Your task to perform on an android device: set default search engine in the chrome app Image 0: 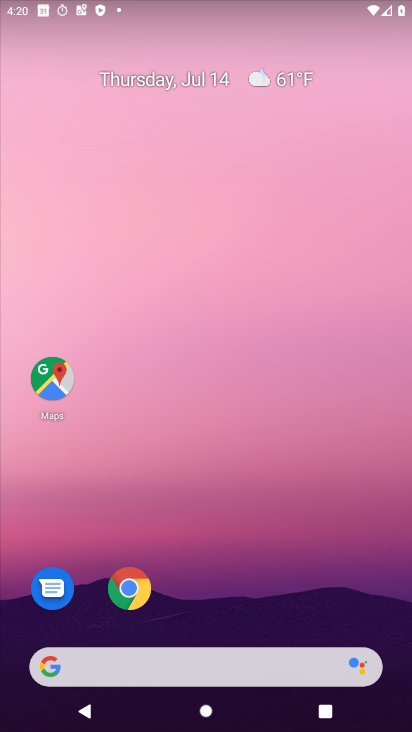
Step 0: click (127, 591)
Your task to perform on an android device: set default search engine in the chrome app Image 1: 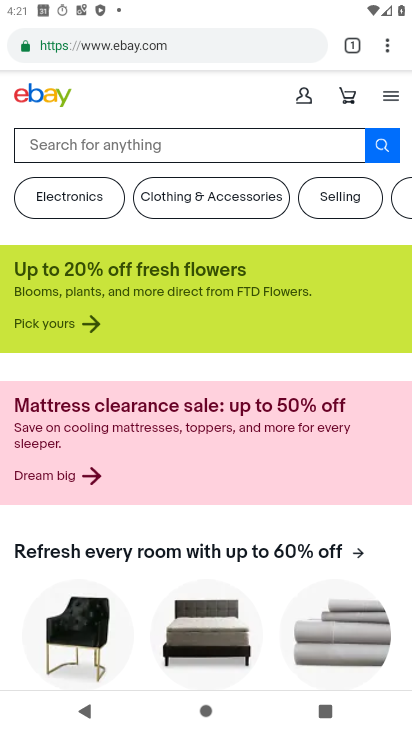
Step 1: click (387, 46)
Your task to perform on an android device: set default search engine in the chrome app Image 2: 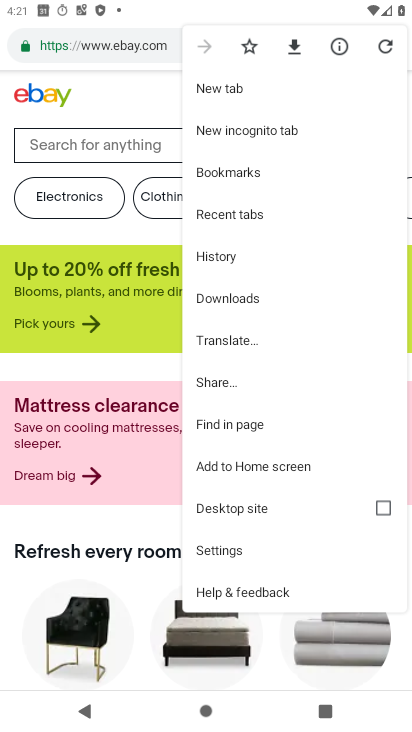
Step 2: click (219, 551)
Your task to perform on an android device: set default search engine in the chrome app Image 3: 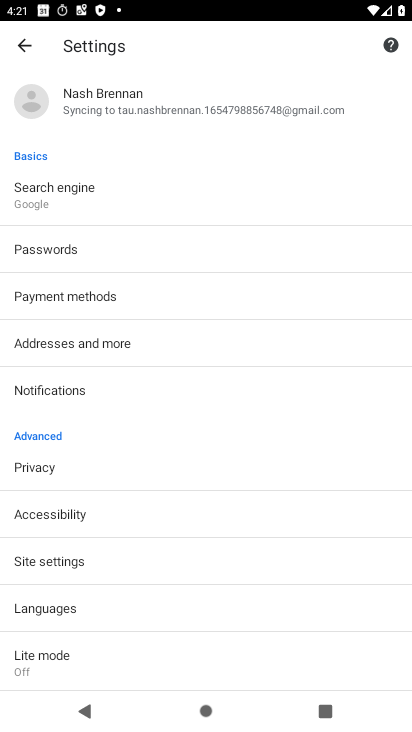
Step 3: click (36, 211)
Your task to perform on an android device: set default search engine in the chrome app Image 4: 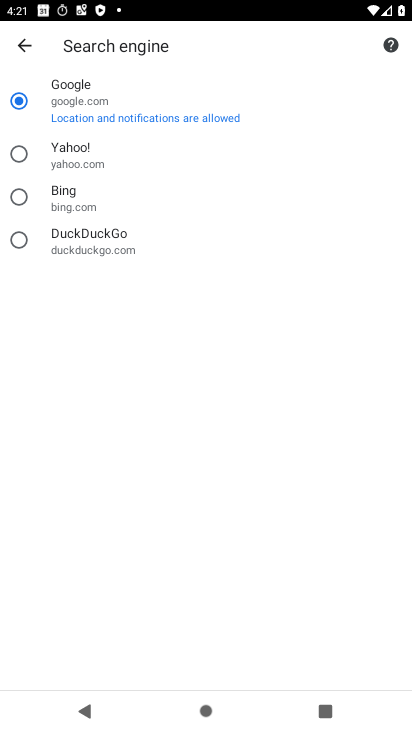
Step 4: click (14, 201)
Your task to perform on an android device: set default search engine in the chrome app Image 5: 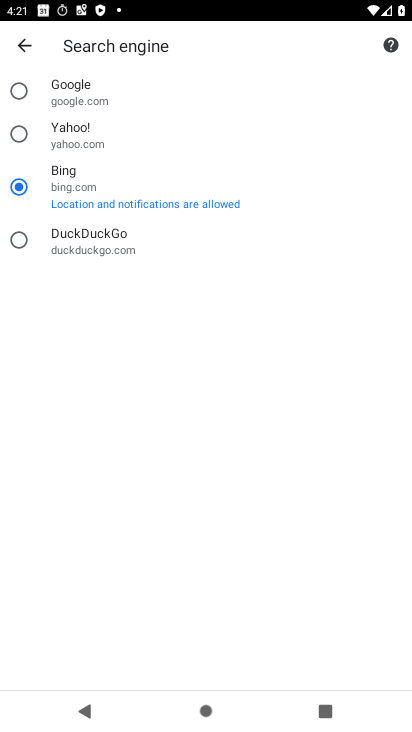
Step 5: task complete